Your task to perform on an android device: open app "Booking.com: Hotels and more" Image 0: 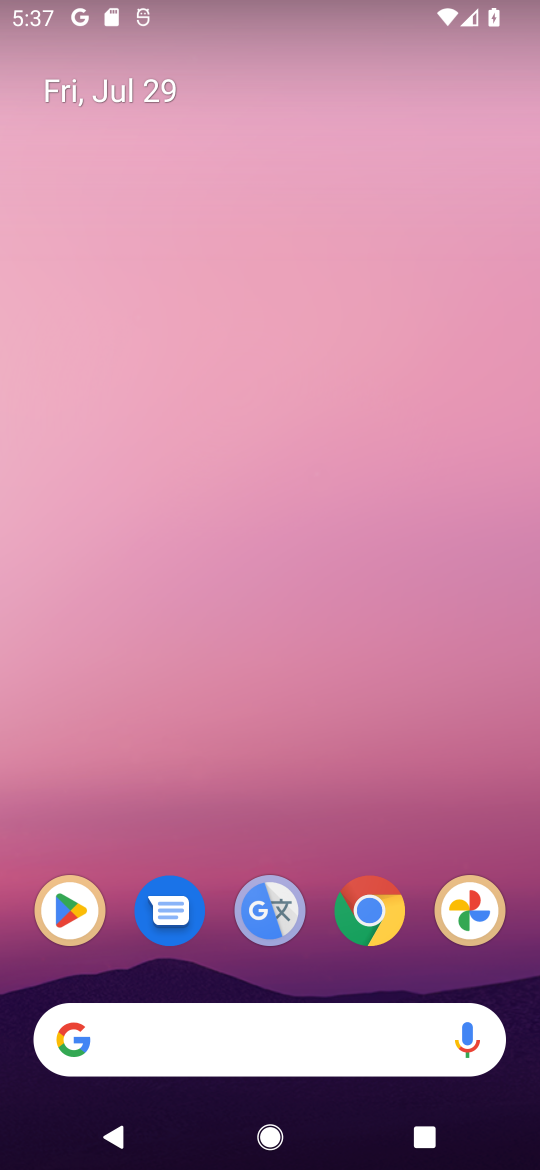
Step 0: click (53, 900)
Your task to perform on an android device: open app "Booking.com: Hotels and more" Image 1: 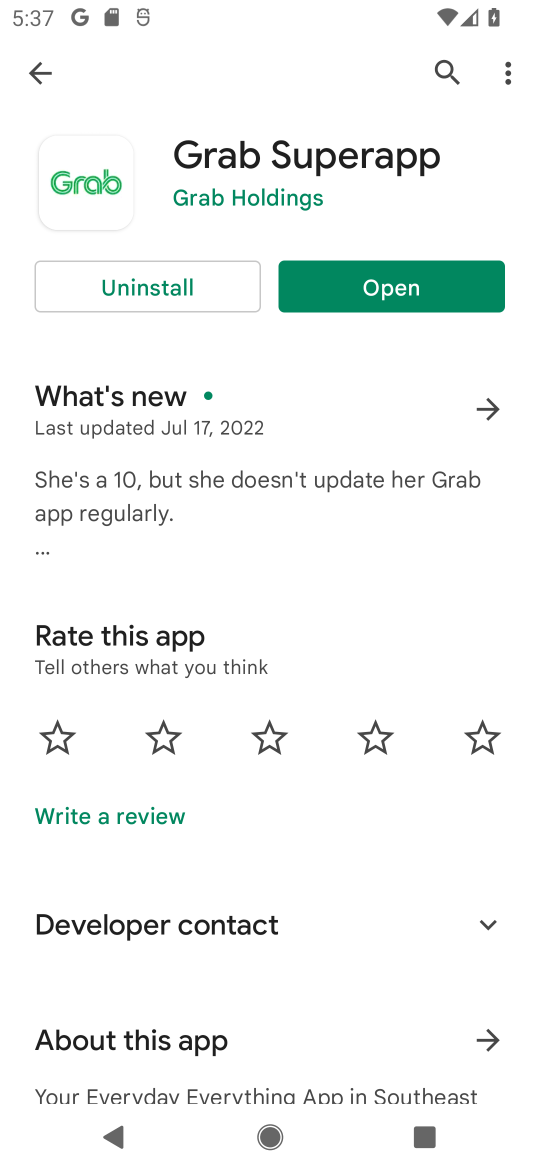
Step 1: click (447, 71)
Your task to perform on an android device: open app "Booking.com: Hotels and more" Image 2: 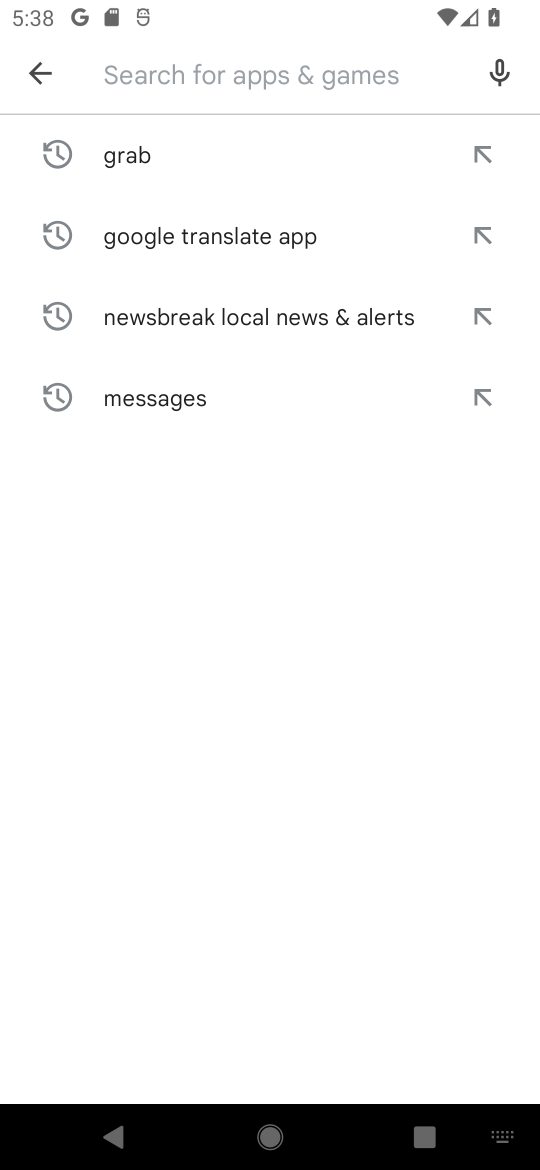
Step 2: type "booking.com: hotels and more"
Your task to perform on an android device: open app "Booking.com: Hotels and more" Image 3: 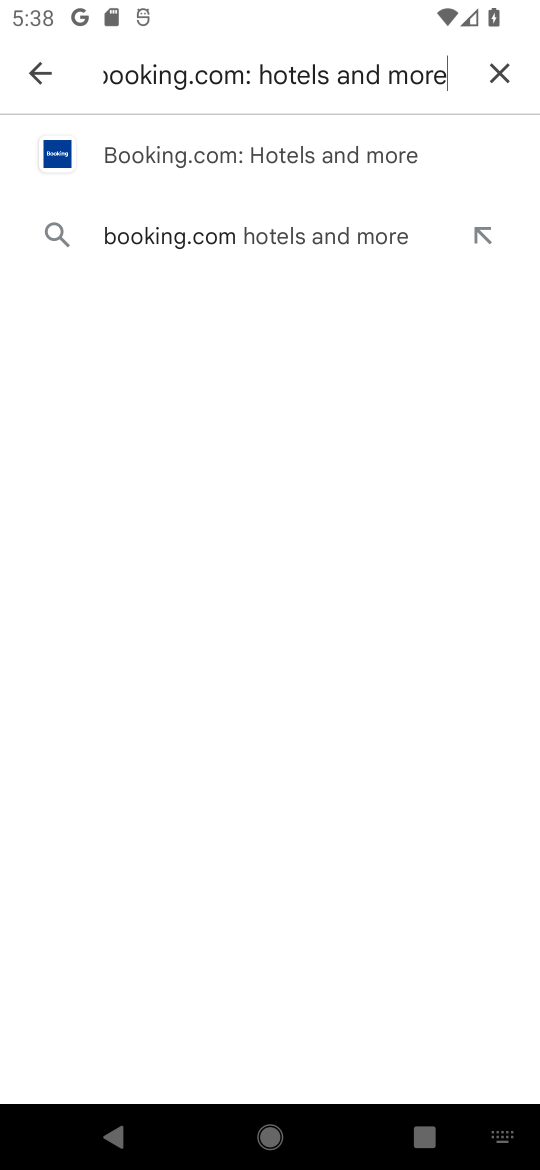
Step 3: click (297, 148)
Your task to perform on an android device: open app "Booking.com: Hotels and more" Image 4: 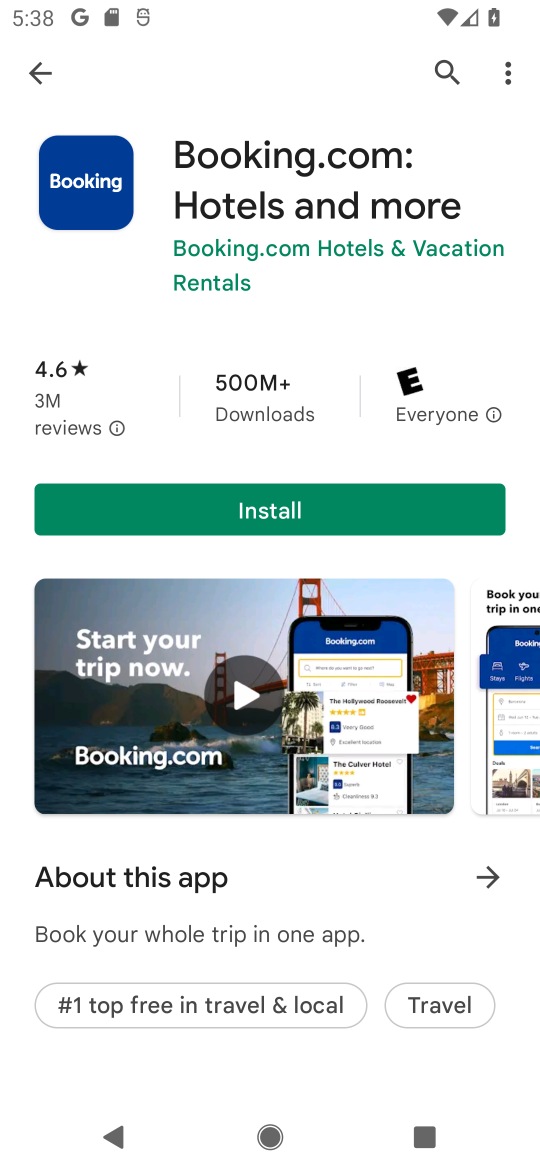
Step 4: task complete